Your task to perform on an android device: Do I have any events this weekend? Image 0: 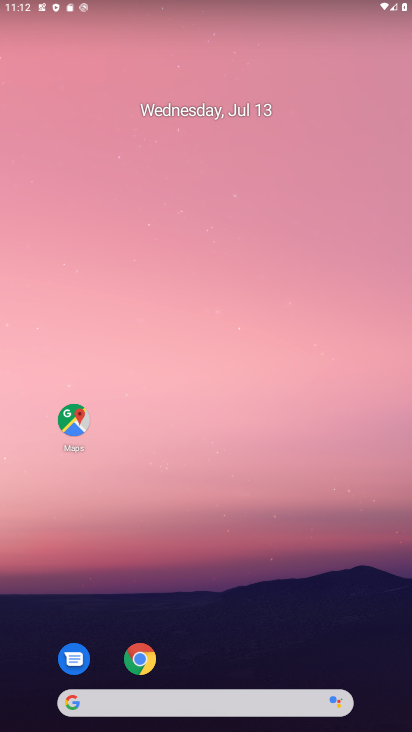
Step 0: drag from (253, 660) to (190, 159)
Your task to perform on an android device: Do I have any events this weekend? Image 1: 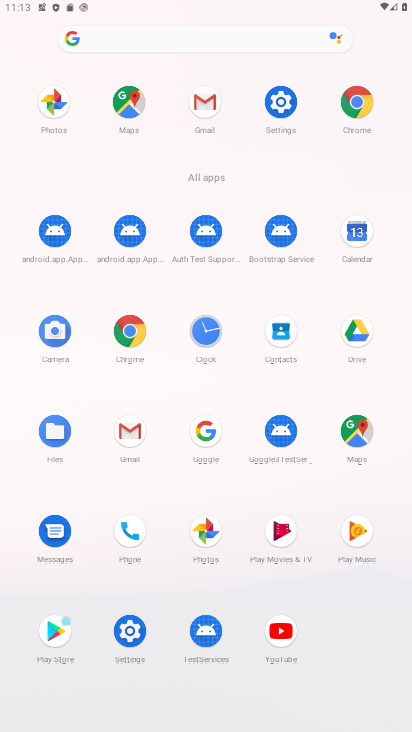
Step 1: click (358, 242)
Your task to perform on an android device: Do I have any events this weekend? Image 2: 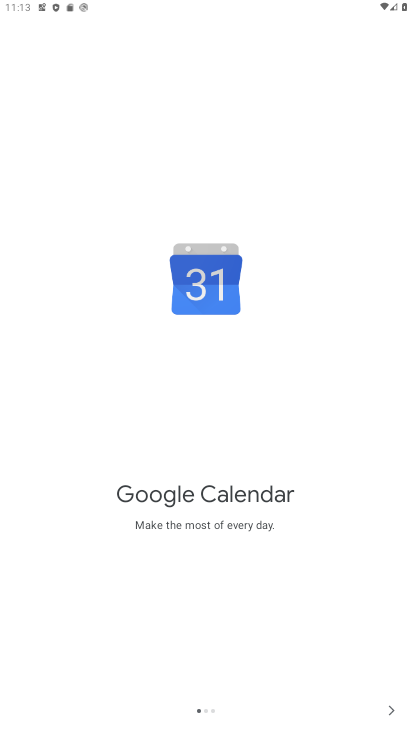
Step 2: click (389, 702)
Your task to perform on an android device: Do I have any events this weekend? Image 3: 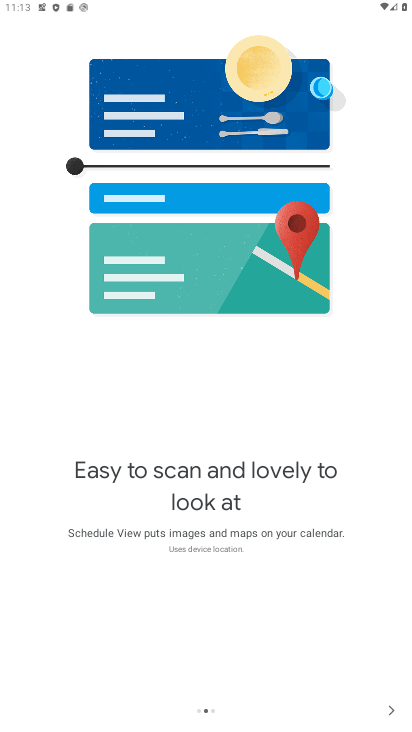
Step 3: click (389, 713)
Your task to perform on an android device: Do I have any events this weekend? Image 4: 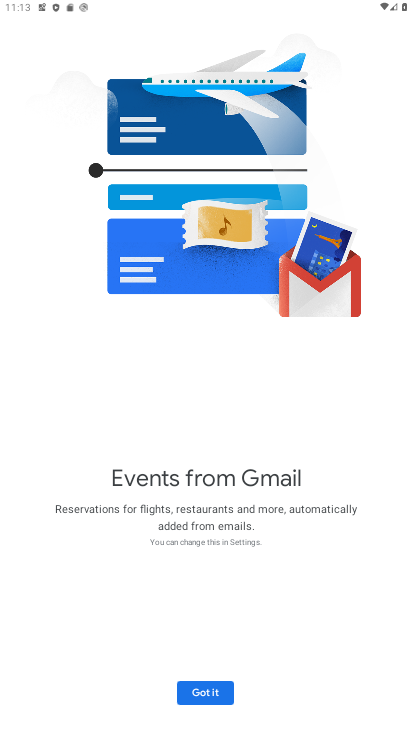
Step 4: click (189, 694)
Your task to perform on an android device: Do I have any events this weekend? Image 5: 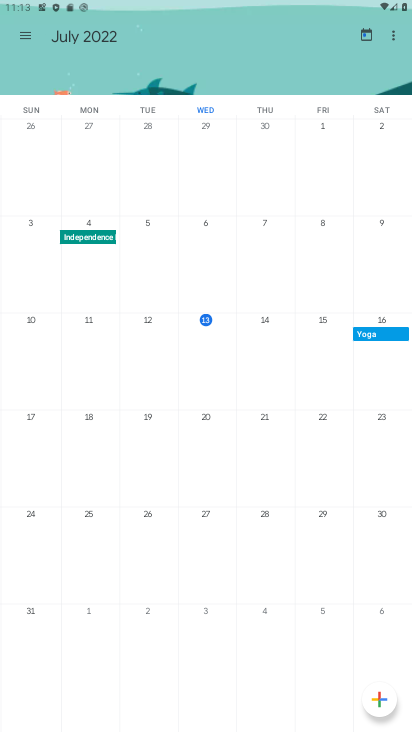
Step 5: click (22, 39)
Your task to perform on an android device: Do I have any events this weekend? Image 6: 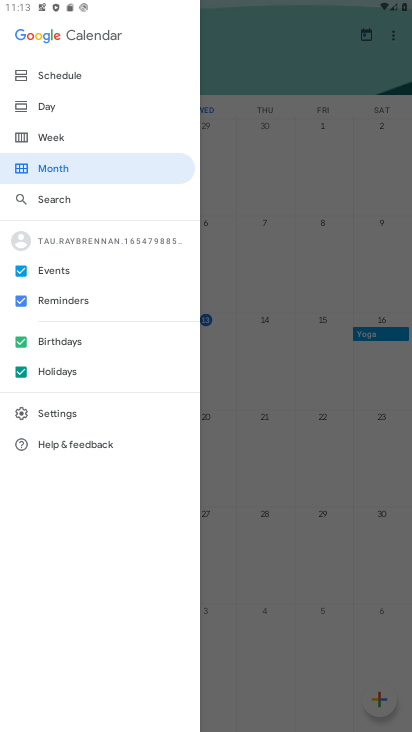
Step 6: click (22, 371)
Your task to perform on an android device: Do I have any events this weekend? Image 7: 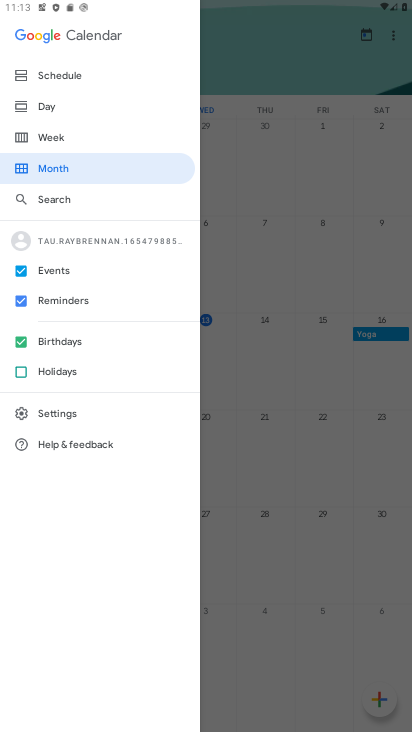
Step 7: click (18, 341)
Your task to perform on an android device: Do I have any events this weekend? Image 8: 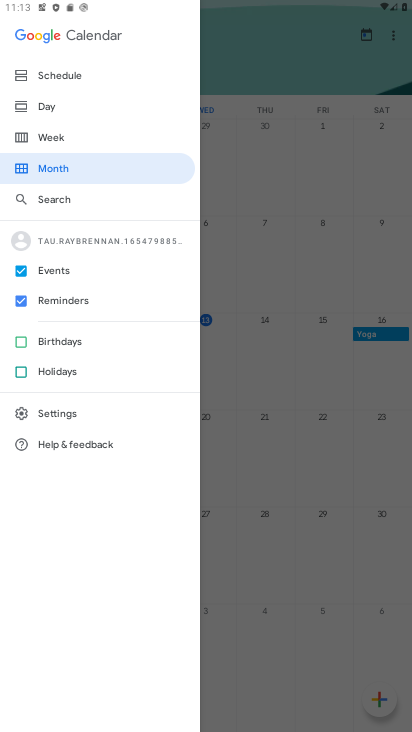
Step 8: click (20, 299)
Your task to perform on an android device: Do I have any events this weekend? Image 9: 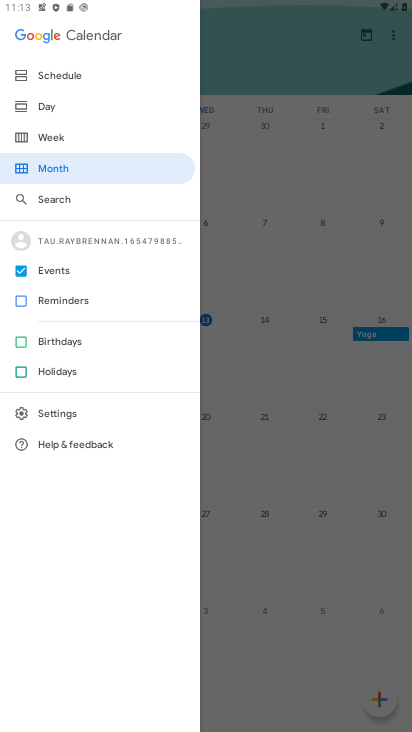
Step 9: click (48, 143)
Your task to perform on an android device: Do I have any events this weekend? Image 10: 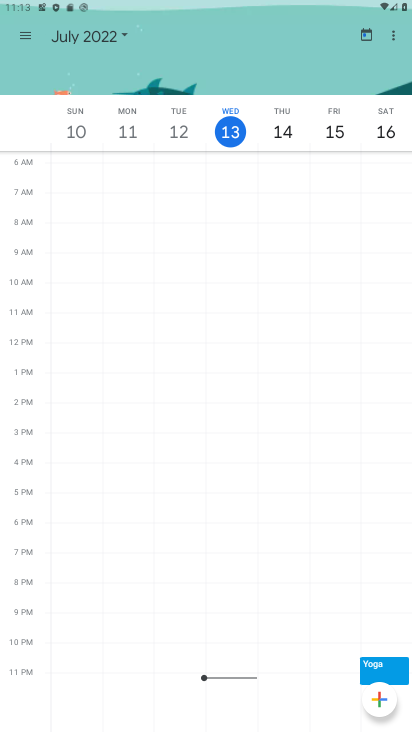
Step 10: click (376, 134)
Your task to perform on an android device: Do I have any events this weekend? Image 11: 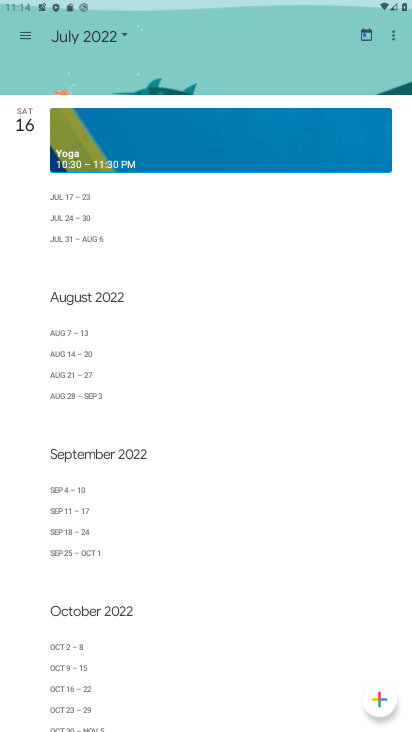
Step 11: task complete